Your task to perform on an android device: Open privacy settings Image 0: 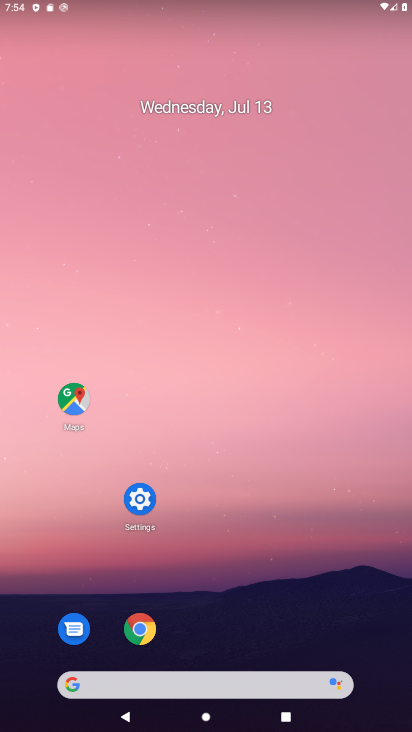
Step 0: click (142, 495)
Your task to perform on an android device: Open privacy settings Image 1: 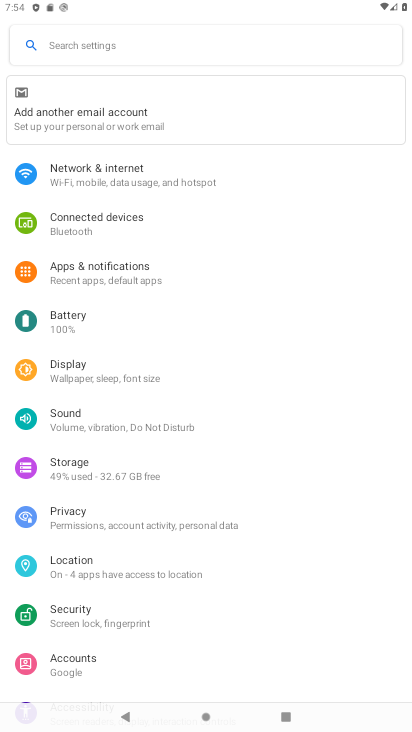
Step 1: click (59, 509)
Your task to perform on an android device: Open privacy settings Image 2: 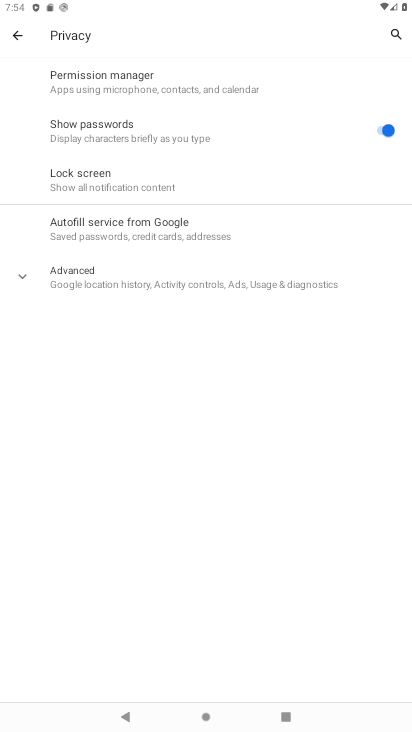
Step 2: task complete